Your task to perform on an android device: manage bookmarks in the chrome app Image 0: 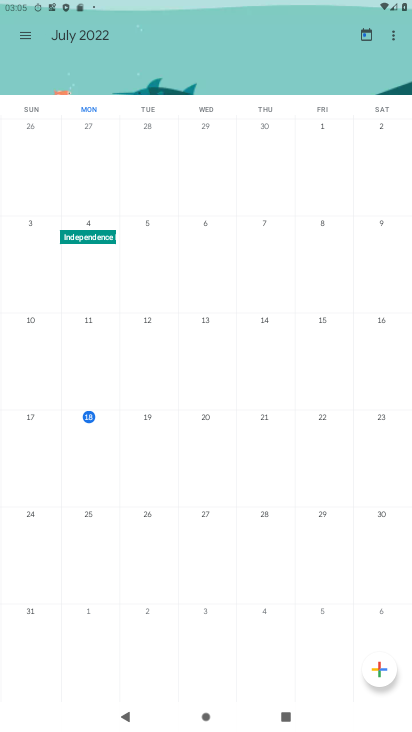
Step 0: press home button
Your task to perform on an android device: manage bookmarks in the chrome app Image 1: 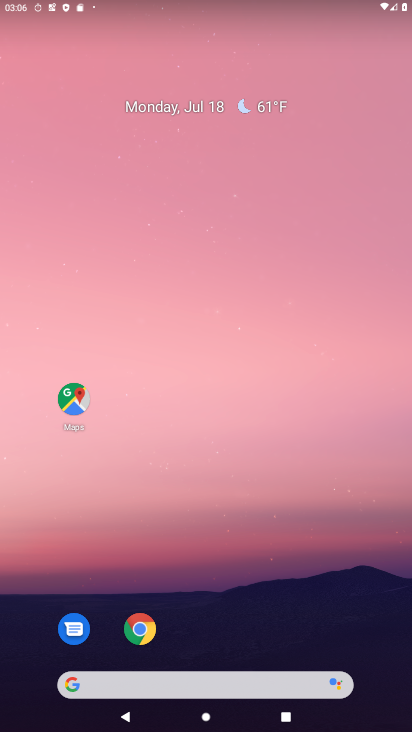
Step 1: click (140, 629)
Your task to perform on an android device: manage bookmarks in the chrome app Image 2: 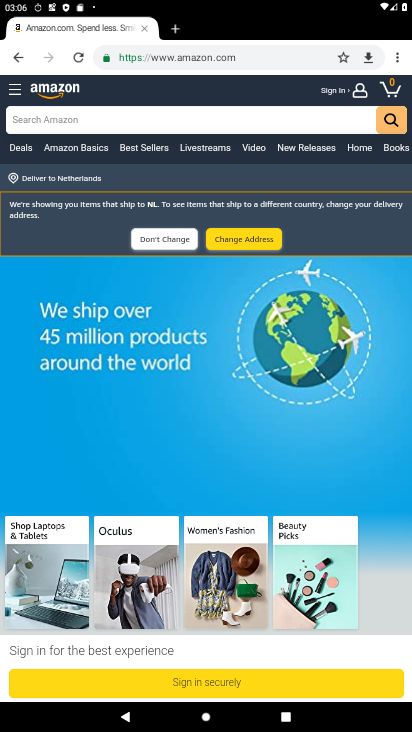
Step 2: click (398, 55)
Your task to perform on an android device: manage bookmarks in the chrome app Image 3: 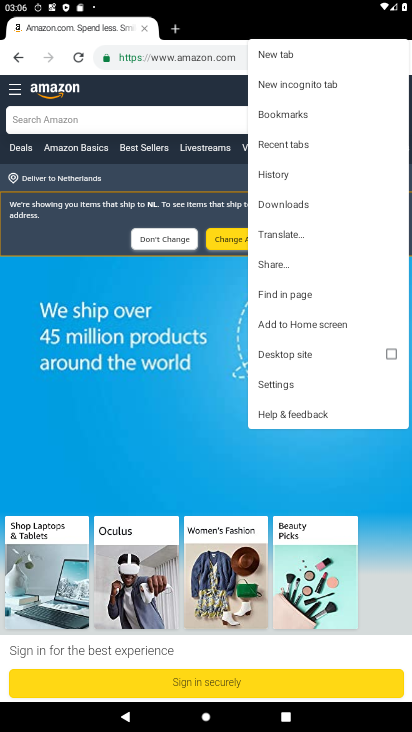
Step 3: click (289, 119)
Your task to perform on an android device: manage bookmarks in the chrome app Image 4: 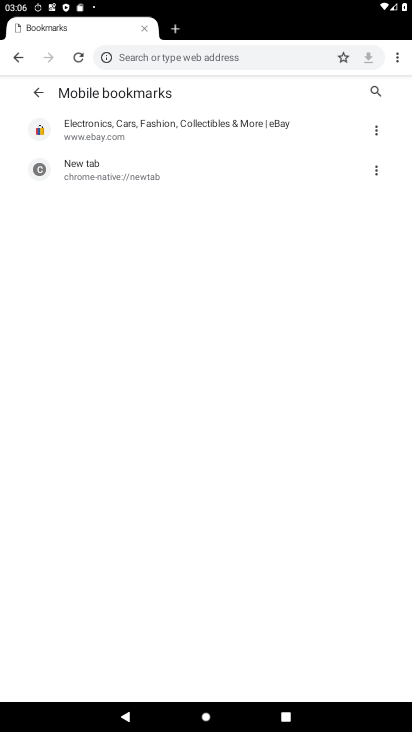
Step 4: click (375, 168)
Your task to perform on an android device: manage bookmarks in the chrome app Image 5: 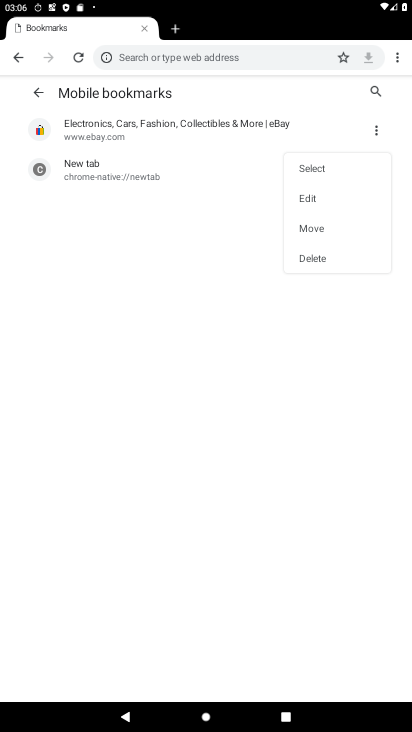
Step 5: click (311, 227)
Your task to perform on an android device: manage bookmarks in the chrome app Image 6: 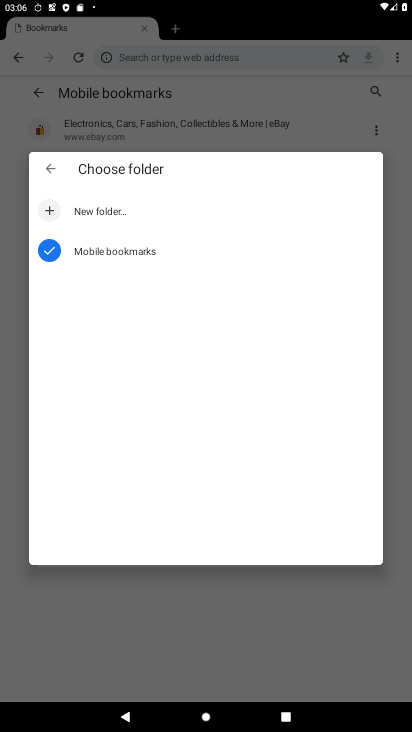
Step 6: click (115, 257)
Your task to perform on an android device: manage bookmarks in the chrome app Image 7: 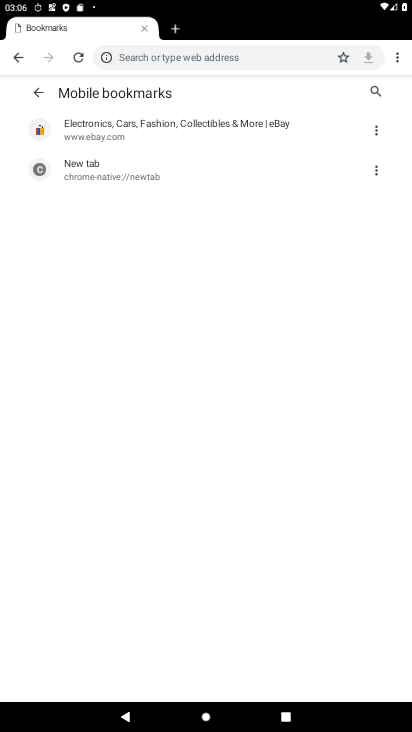
Step 7: task complete